Your task to perform on an android device: When is my next meeting? Image 0: 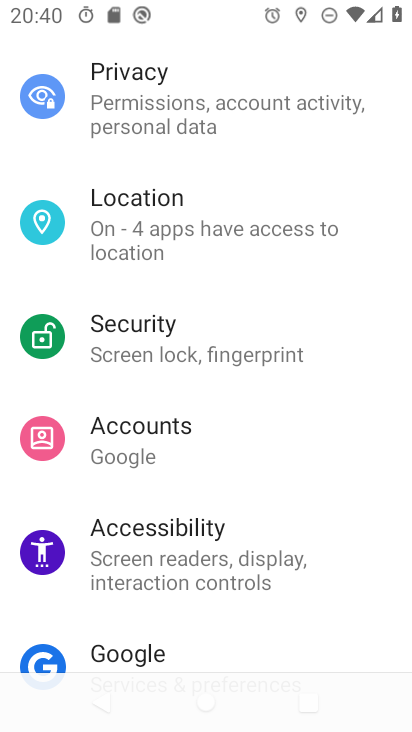
Step 0: press home button
Your task to perform on an android device: When is my next meeting? Image 1: 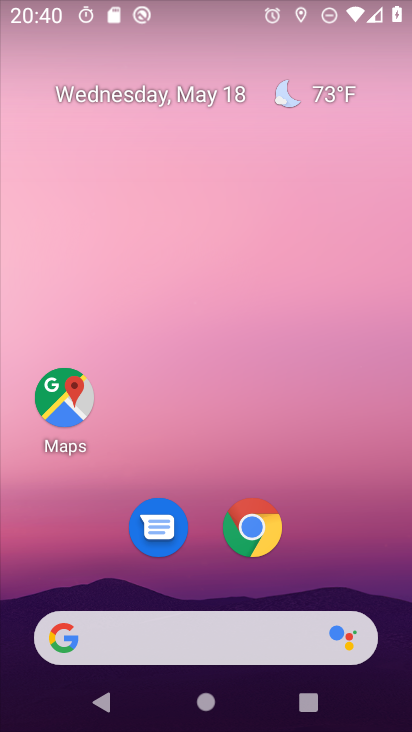
Step 1: drag from (382, 498) to (359, 263)
Your task to perform on an android device: When is my next meeting? Image 2: 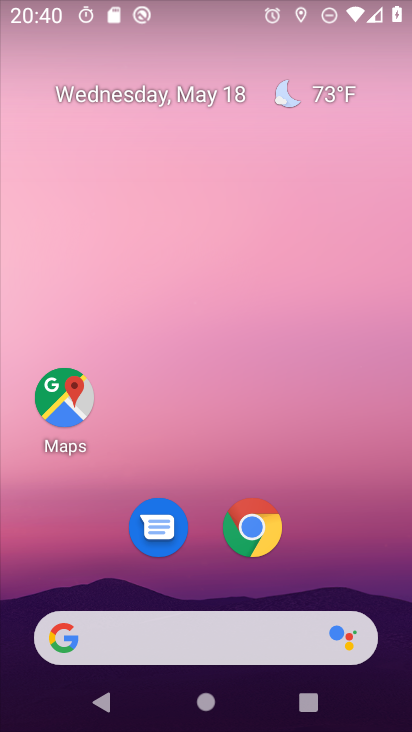
Step 2: drag from (389, 695) to (338, 121)
Your task to perform on an android device: When is my next meeting? Image 3: 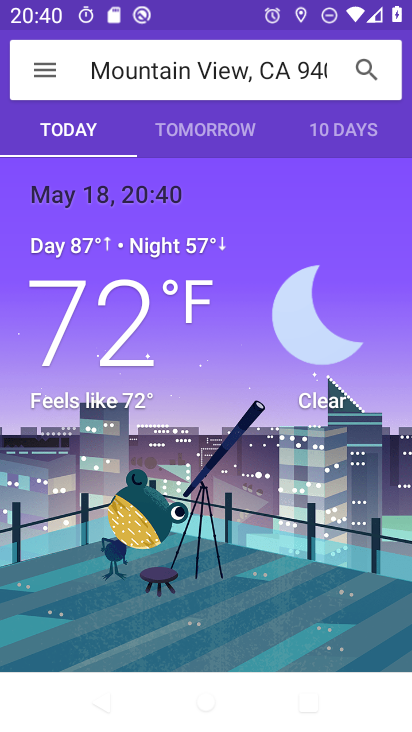
Step 3: press back button
Your task to perform on an android device: When is my next meeting? Image 4: 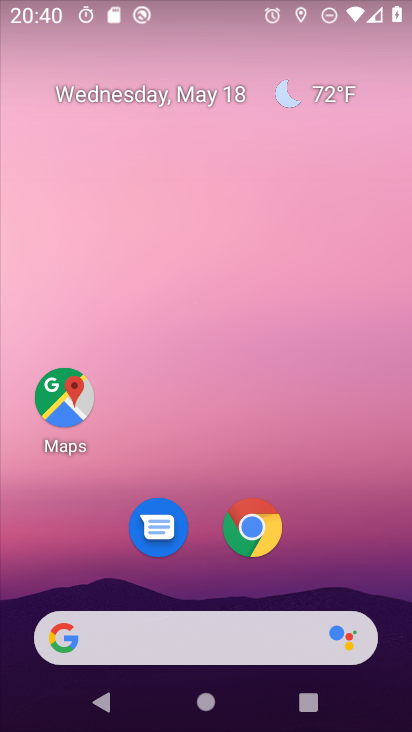
Step 4: drag from (385, 501) to (375, 221)
Your task to perform on an android device: When is my next meeting? Image 5: 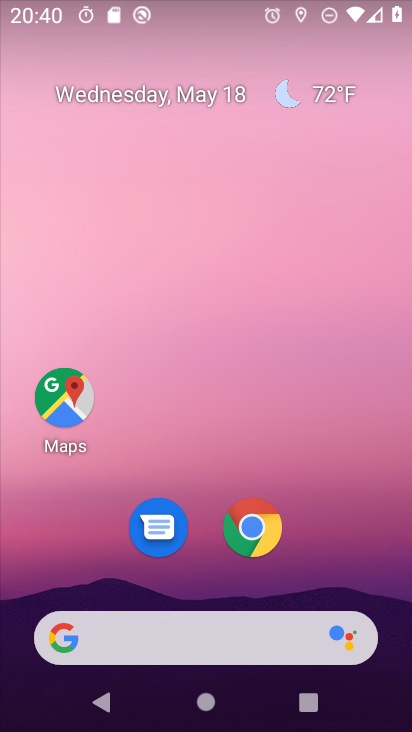
Step 5: drag from (397, 696) to (384, 301)
Your task to perform on an android device: When is my next meeting? Image 6: 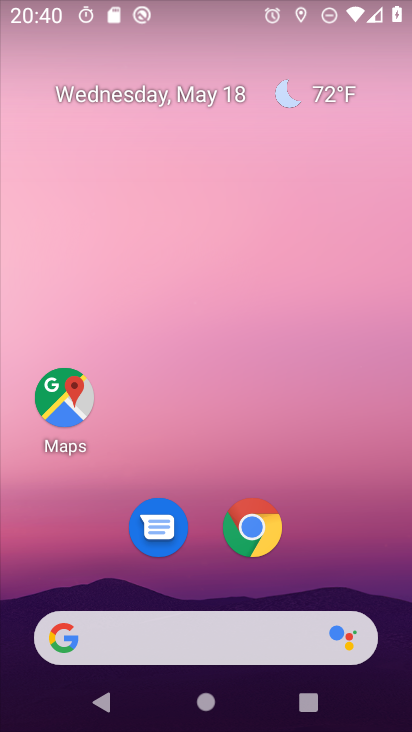
Step 6: drag from (391, 687) to (314, 115)
Your task to perform on an android device: When is my next meeting? Image 7: 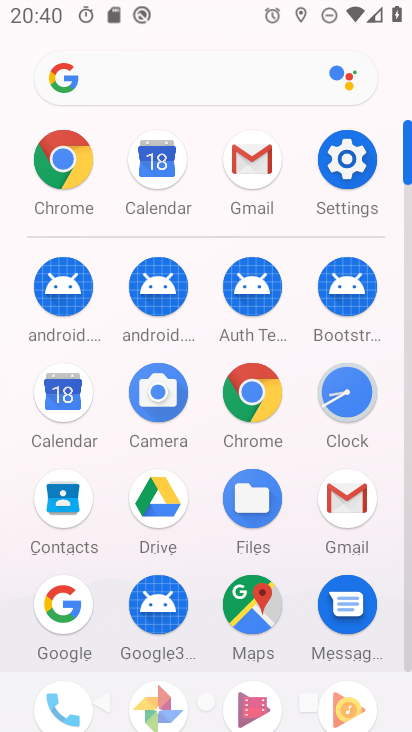
Step 7: click (69, 378)
Your task to perform on an android device: When is my next meeting? Image 8: 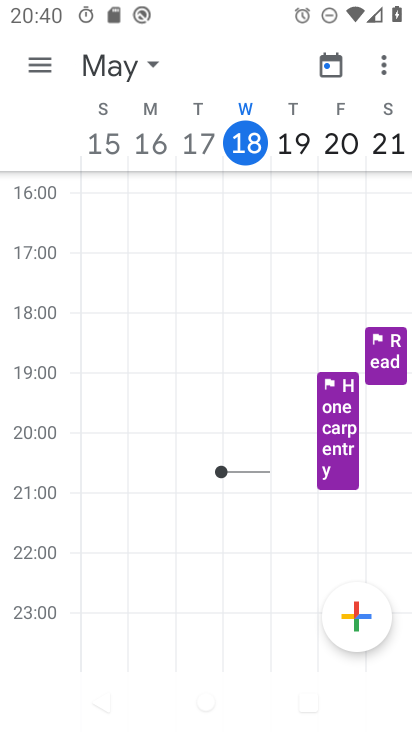
Step 8: click (45, 61)
Your task to perform on an android device: When is my next meeting? Image 9: 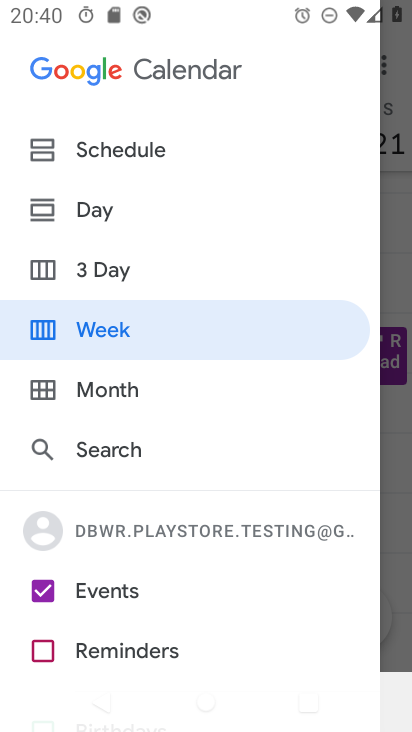
Step 9: click (117, 150)
Your task to perform on an android device: When is my next meeting? Image 10: 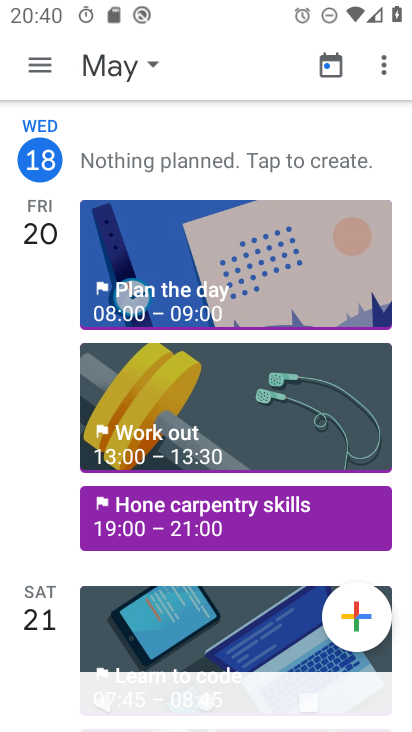
Step 10: task complete